Your task to perform on an android device: toggle sleep mode Image 0: 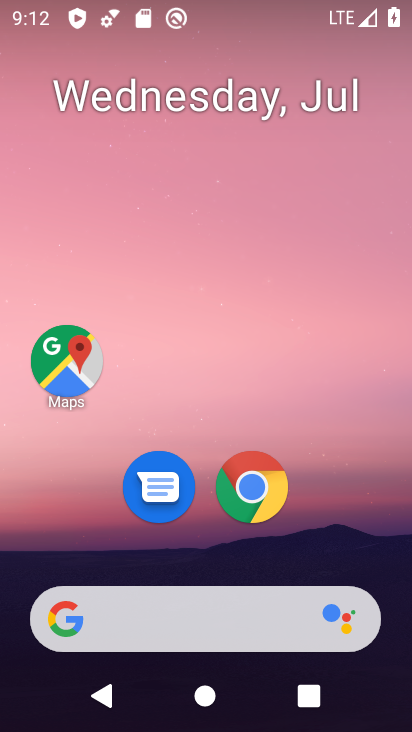
Step 0: drag from (196, 574) to (166, 65)
Your task to perform on an android device: toggle sleep mode Image 1: 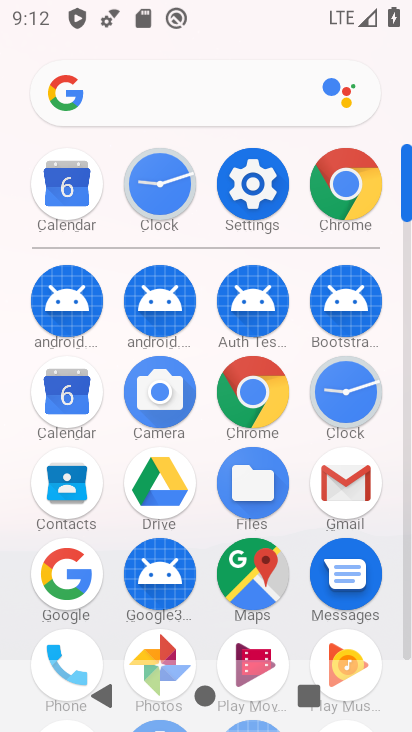
Step 1: click (255, 188)
Your task to perform on an android device: toggle sleep mode Image 2: 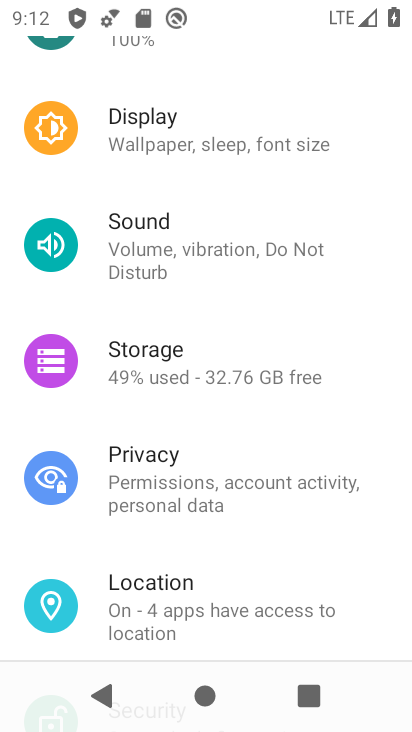
Step 2: click (214, 115)
Your task to perform on an android device: toggle sleep mode Image 3: 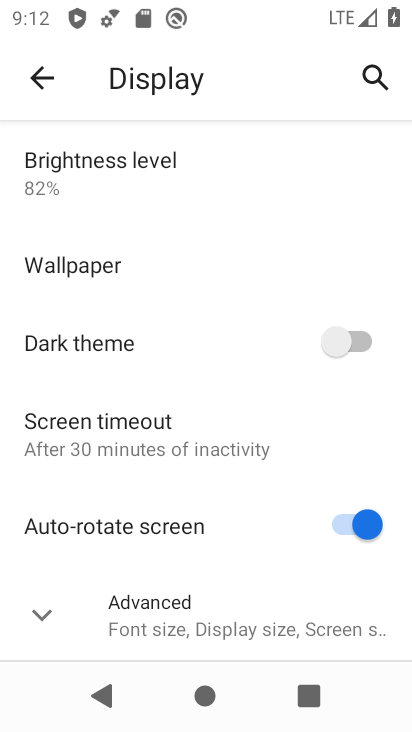
Step 3: task complete